Your task to perform on an android device: check the backup settings in the google photos Image 0: 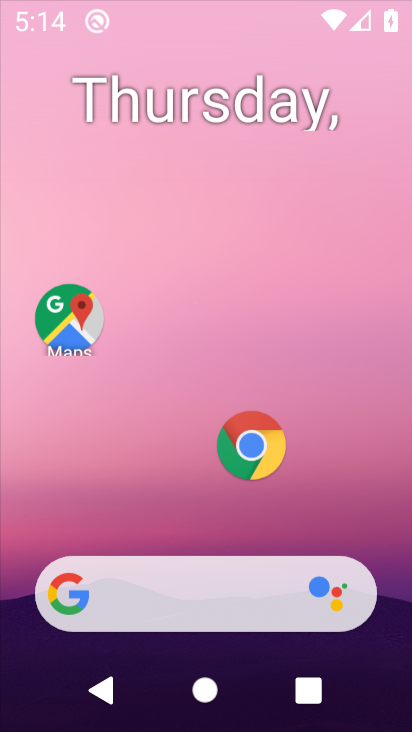
Step 0: drag from (253, 662) to (172, 231)
Your task to perform on an android device: check the backup settings in the google photos Image 1: 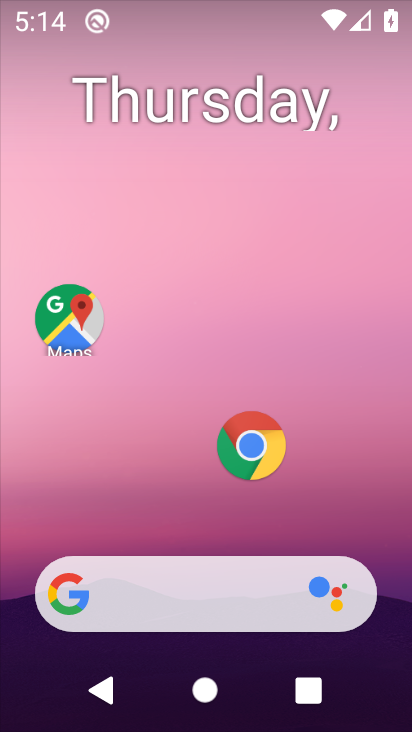
Step 1: drag from (269, 606) to (199, 139)
Your task to perform on an android device: check the backup settings in the google photos Image 2: 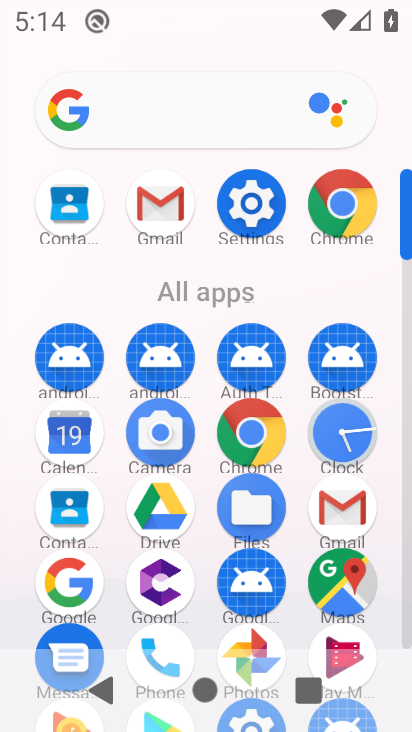
Step 2: drag from (279, 419) to (184, 132)
Your task to perform on an android device: check the backup settings in the google photos Image 3: 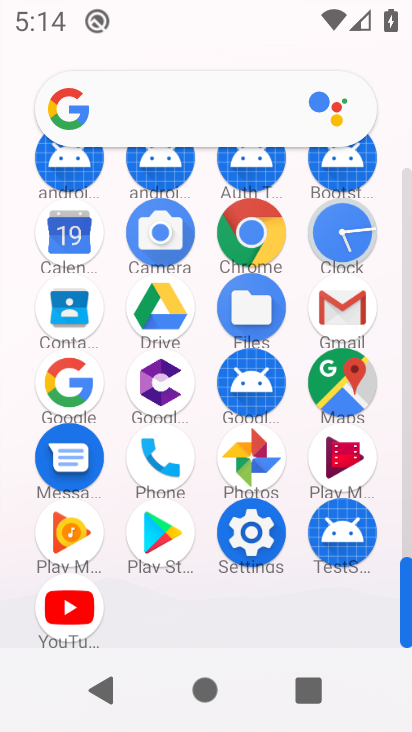
Step 3: click (350, 370)
Your task to perform on an android device: check the backup settings in the google photos Image 4: 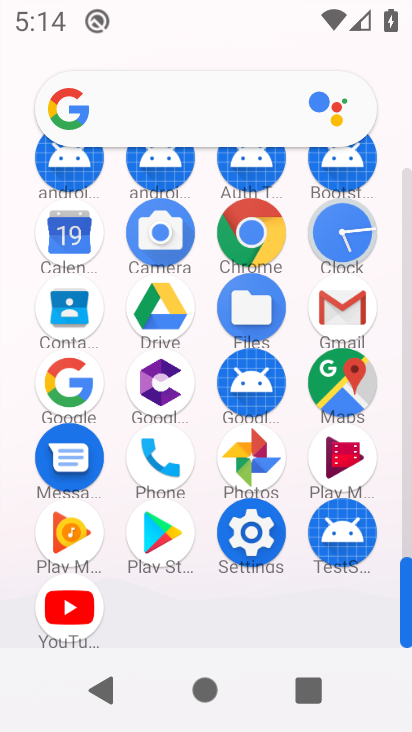
Step 4: click (350, 370)
Your task to perform on an android device: check the backup settings in the google photos Image 5: 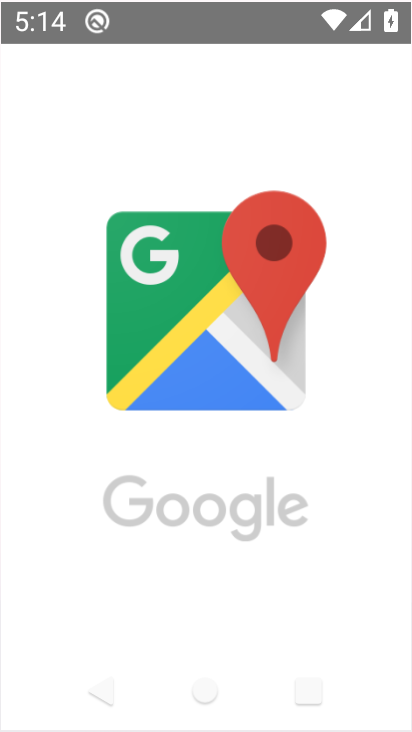
Step 5: click (350, 381)
Your task to perform on an android device: check the backup settings in the google photos Image 6: 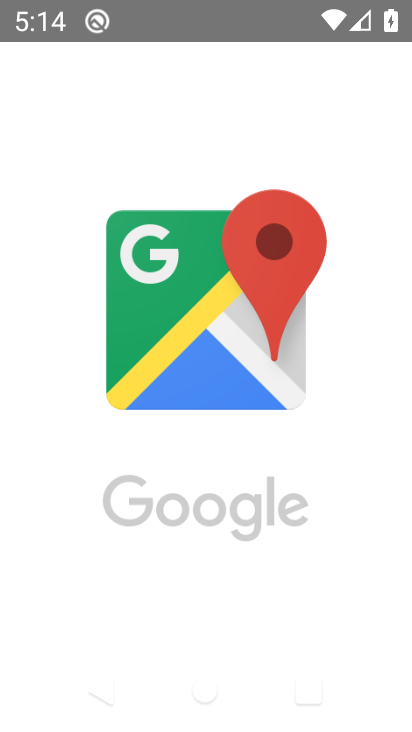
Step 6: click (294, 316)
Your task to perform on an android device: check the backup settings in the google photos Image 7: 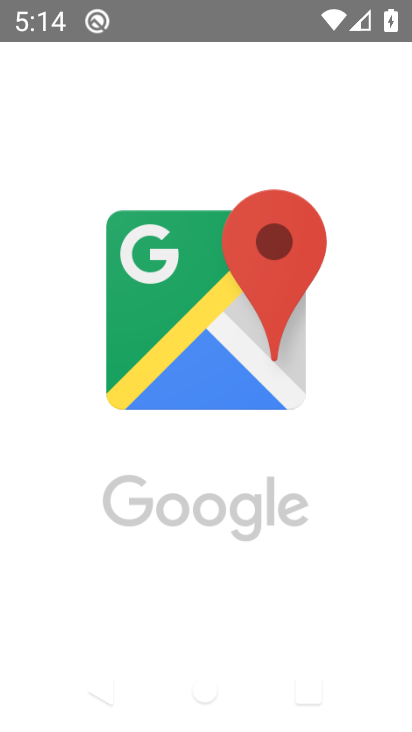
Step 7: click (239, 299)
Your task to perform on an android device: check the backup settings in the google photos Image 8: 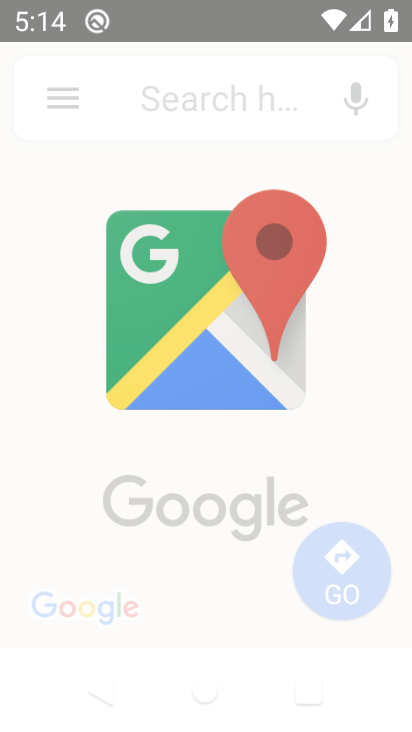
Step 8: click (235, 297)
Your task to perform on an android device: check the backup settings in the google photos Image 9: 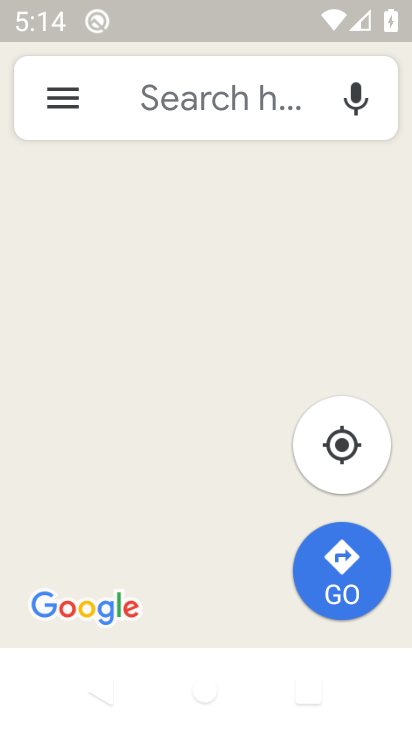
Step 9: click (235, 297)
Your task to perform on an android device: check the backup settings in the google photos Image 10: 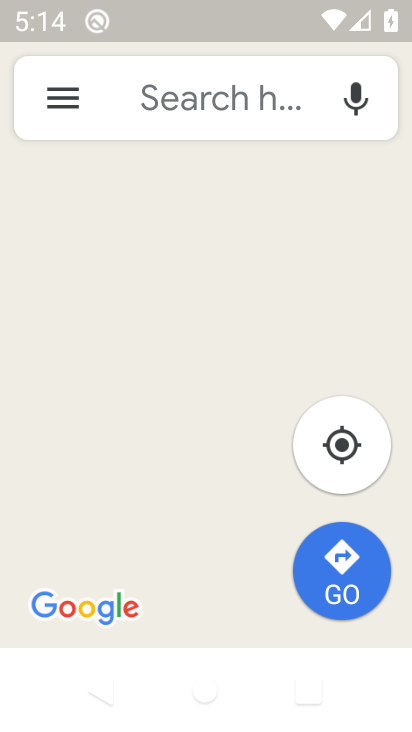
Step 10: click (235, 297)
Your task to perform on an android device: check the backup settings in the google photos Image 11: 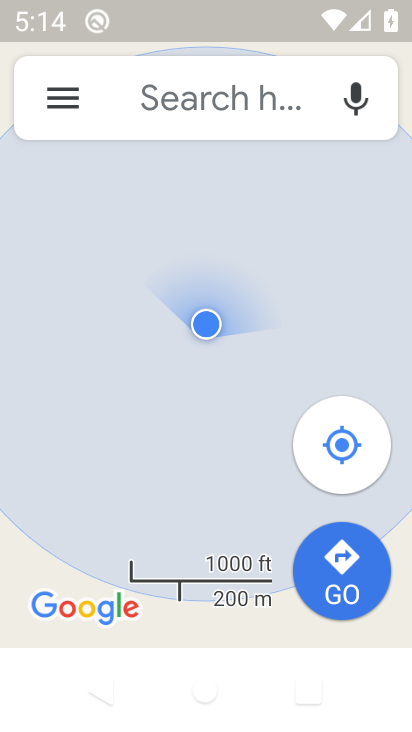
Step 11: task complete